Your task to perform on an android device: uninstall "Roku - Official Remote Control" Image 0: 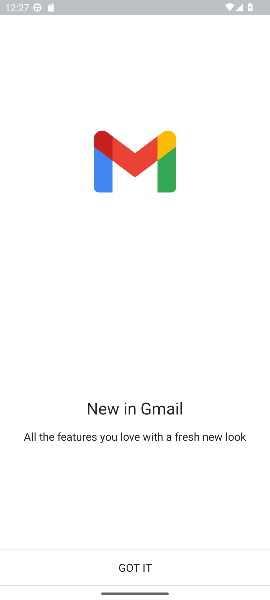
Step 0: press home button
Your task to perform on an android device: uninstall "Roku - Official Remote Control" Image 1: 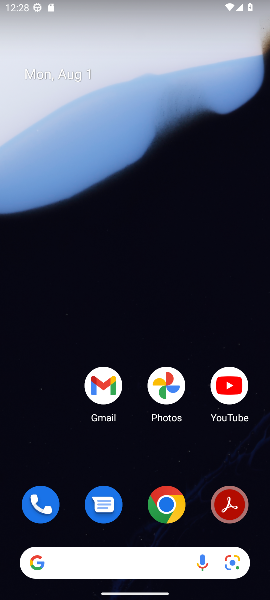
Step 1: drag from (141, 551) to (166, 6)
Your task to perform on an android device: uninstall "Roku - Official Remote Control" Image 2: 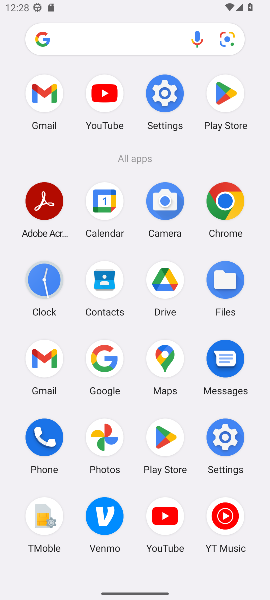
Step 2: click (216, 88)
Your task to perform on an android device: uninstall "Roku - Official Remote Control" Image 3: 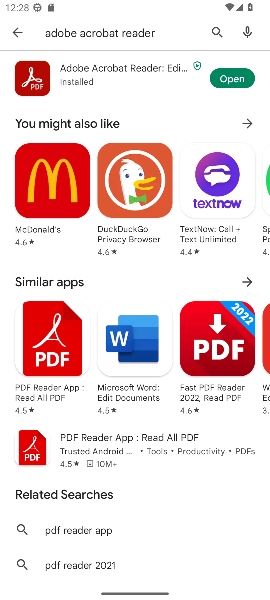
Step 3: click (211, 27)
Your task to perform on an android device: uninstall "Roku - Official Remote Control" Image 4: 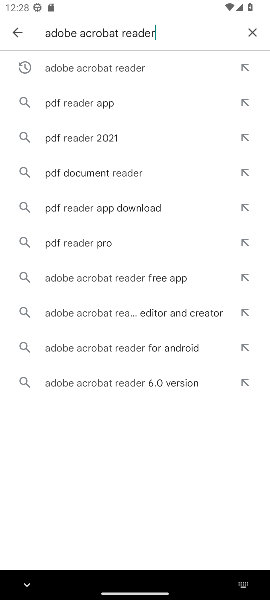
Step 4: click (252, 24)
Your task to perform on an android device: uninstall "Roku - Official Remote Control" Image 5: 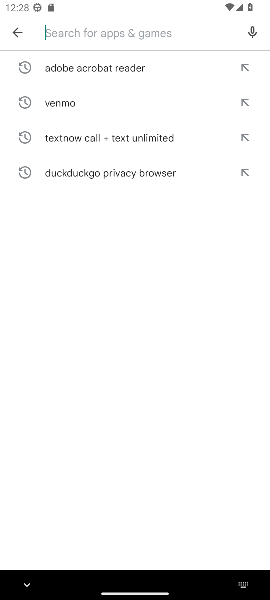
Step 5: type "roku - official remote control"
Your task to perform on an android device: uninstall "Roku - Official Remote Control" Image 6: 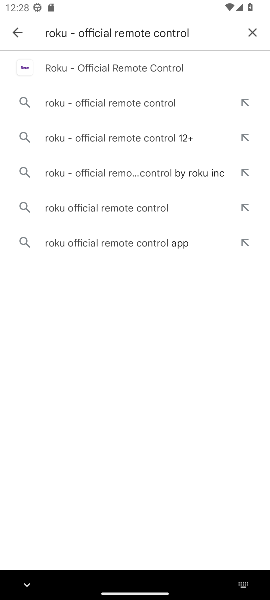
Step 6: click (171, 68)
Your task to perform on an android device: uninstall "Roku - Official Remote Control" Image 7: 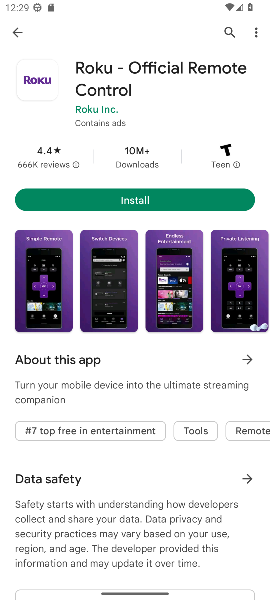
Step 7: task complete